Your task to perform on an android device: turn off improve location accuracy Image 0: 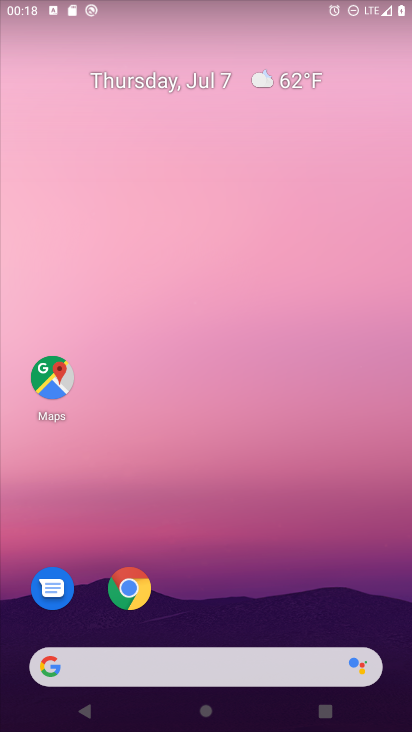
Step 0: drag from (392, 624) to (328, 77)
Your task to perform on an android device: turn off improve location accuracy Image 1: 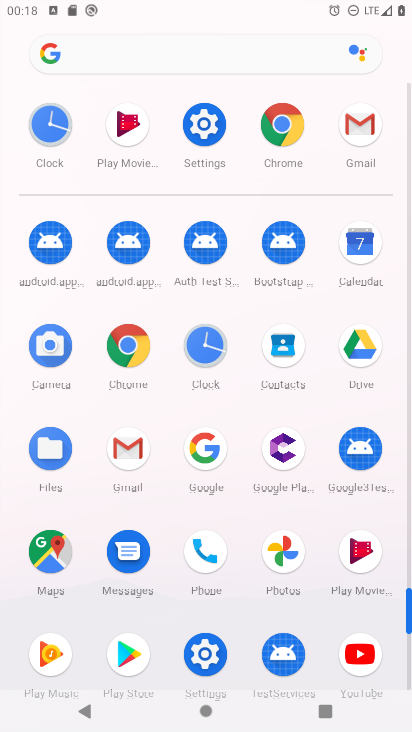
Step 1: click (203, 654)
Your task to perform on an android device: turn off improve location accuracy Image 2: 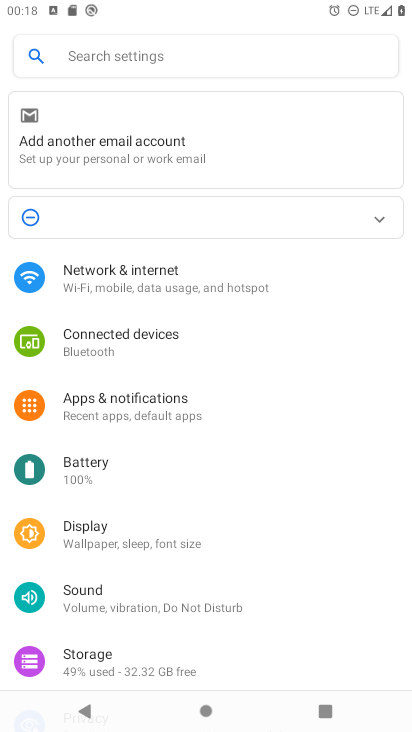
Step 2: drag from (264, 627) to (262, 197)
Your task to perform on an android device: turn off improve location accuracy Image 3: 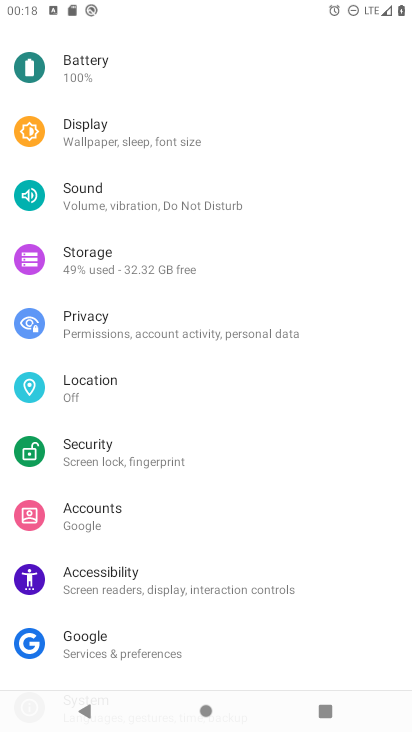
Step 3: click (83, 387)
Your task to perform on an android device: turn off improve location accuracy Image 4: 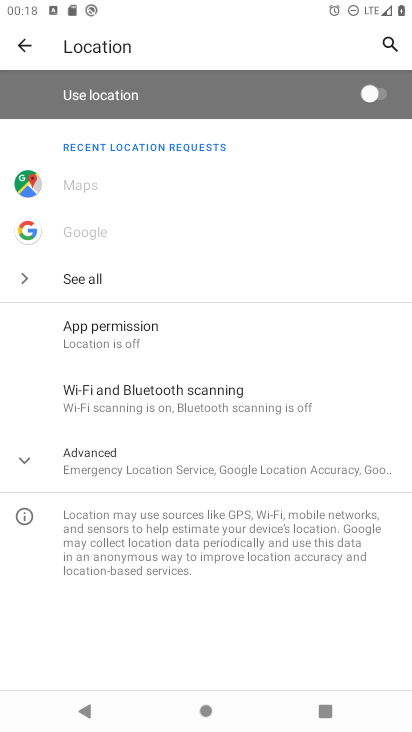
Step 4: click (52, 465)
Your task to perform on an android device: turn off improve location accuracy Image 5: 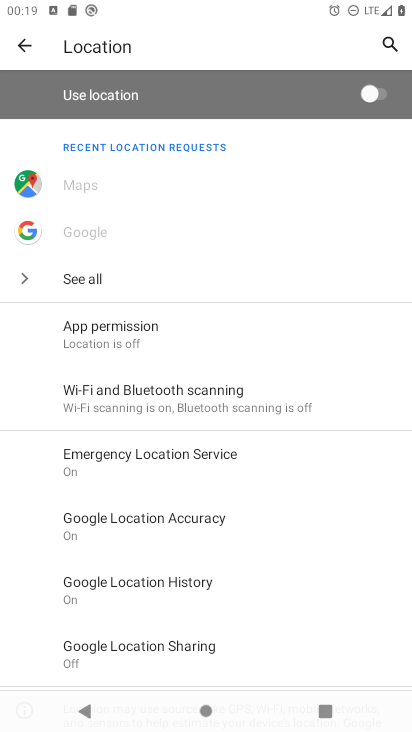
Step 5: click (111, 510)
Your task to perform on an android device: turn off improve location accuracy Image 6: 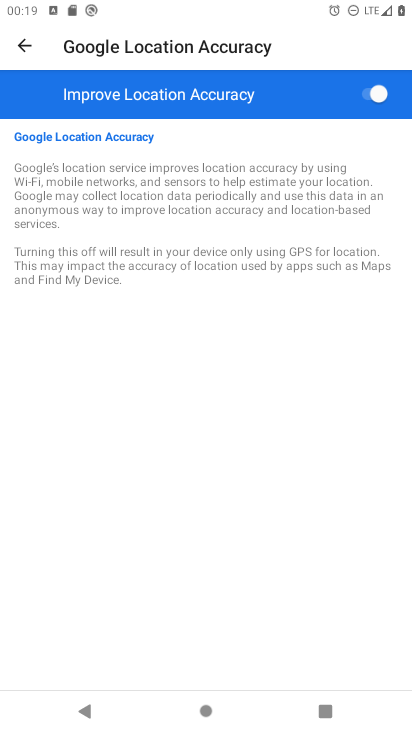
Step 6: click (368, 92)
Your task to perform on an android device: turn off improve location accuracy Image 7: 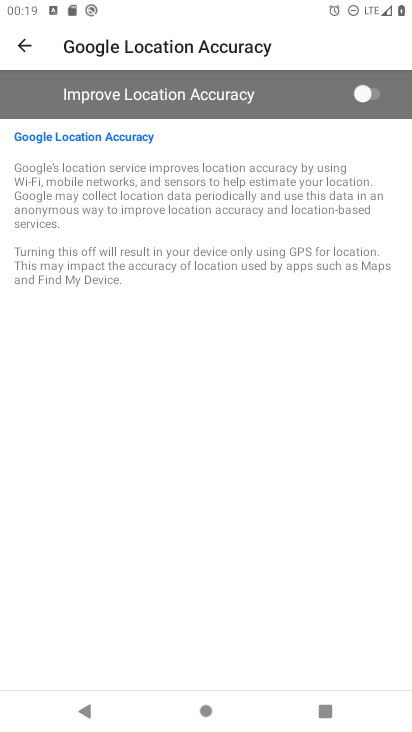
Step 7: task complete